Your task to perform on an android device: toggle pop-ups in chrome Image 0: 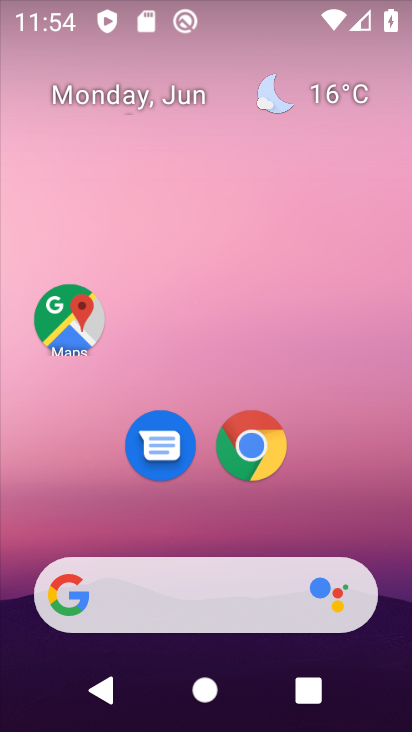
Step 0: click (248, 460)
Your task to perform on an android device: toggle pop-ups in chrome Image 1: 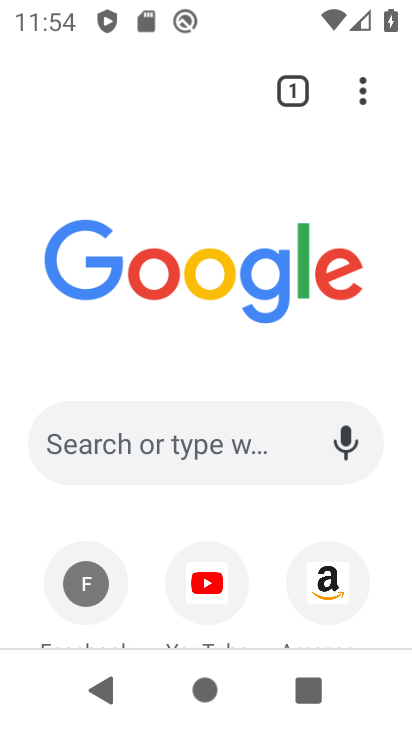
Step 1: click (348, 94)
Your task to perform on an android device: toggle pop-ups in chrome Image 2: 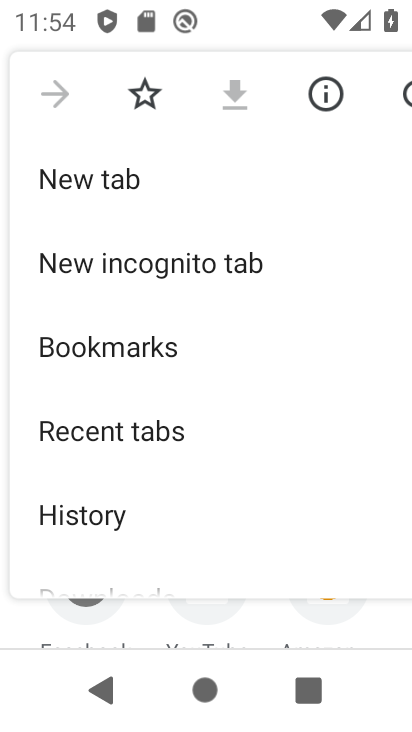
Step 2: drag from (185, 463) to (336, 32)
Your task to perform on an android device: toggle pop-ups in chrome Image 3: 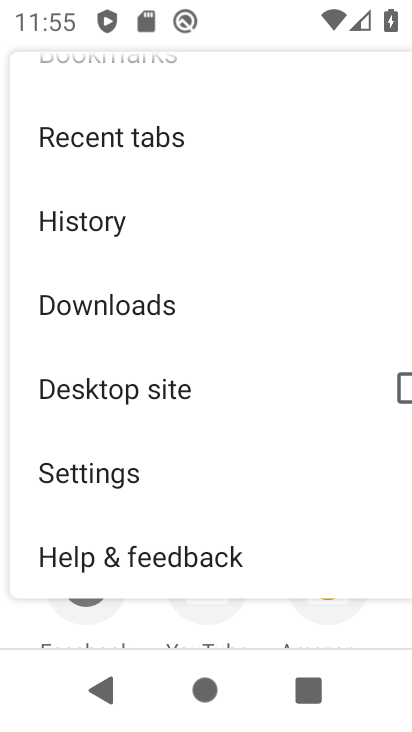
Step 3: click (126, 463)
Your task to perform on an android device: toggle pop-ups in chrome Image 4: 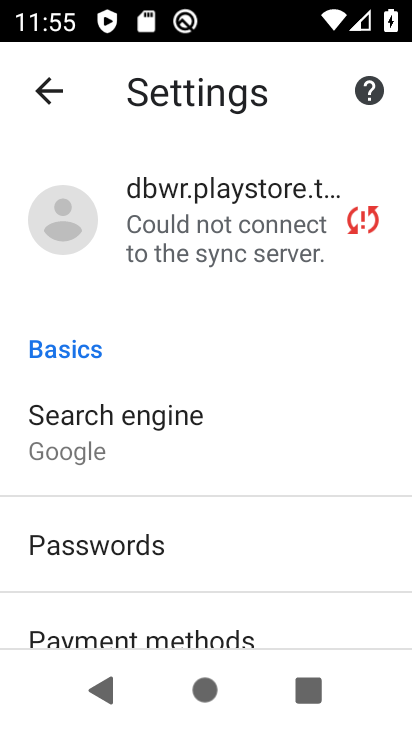
Step 4: drag from (101, 594) to (181, 159)
Your task to perform on an android device: toggle pop-ups in chrome Image 5: 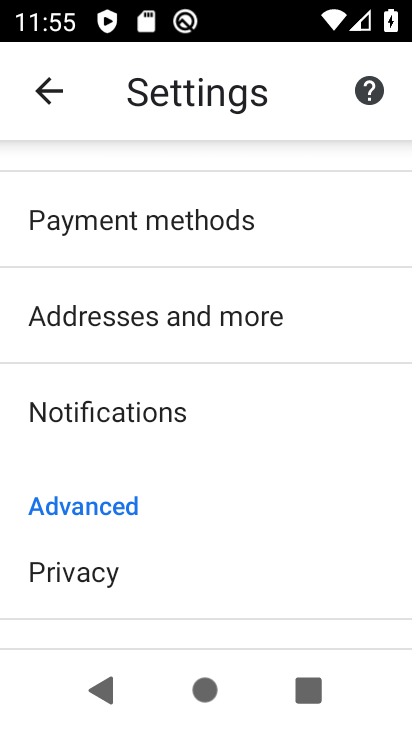
Step 5: drag from (125, 532) to (171, 164)
Your task to perform on an android device: toggle pop-ups in chrome Image 6: 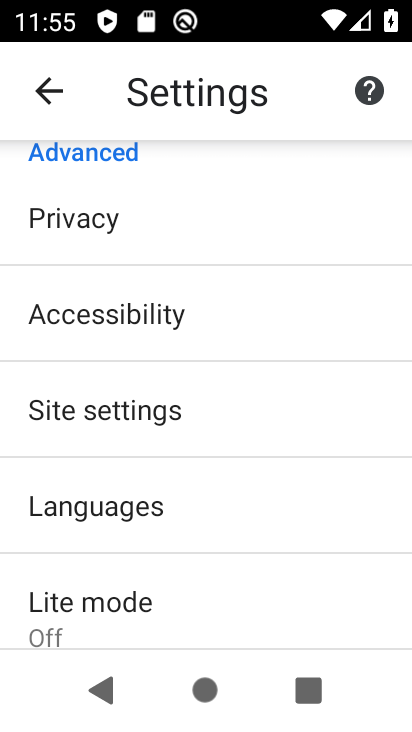
Step 6: click (224, 404)
Your task to perform on an android device: toggle pop-ups in chrome Image 7: 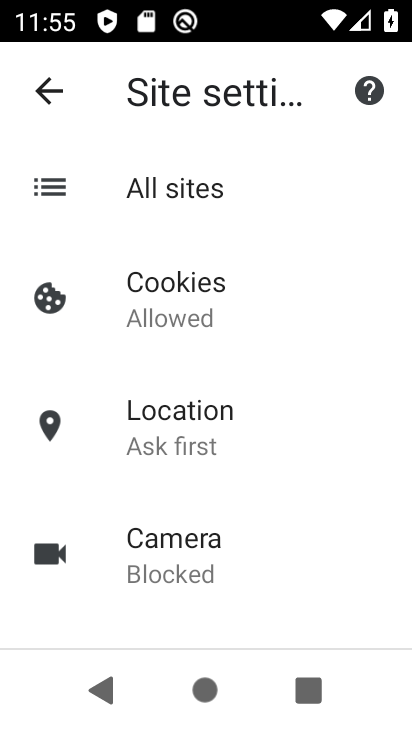
Step 7: drag from (127, 622) to (127, 157)
Your task to perform on an android device: toggle pop-ups in chrome Image 8: 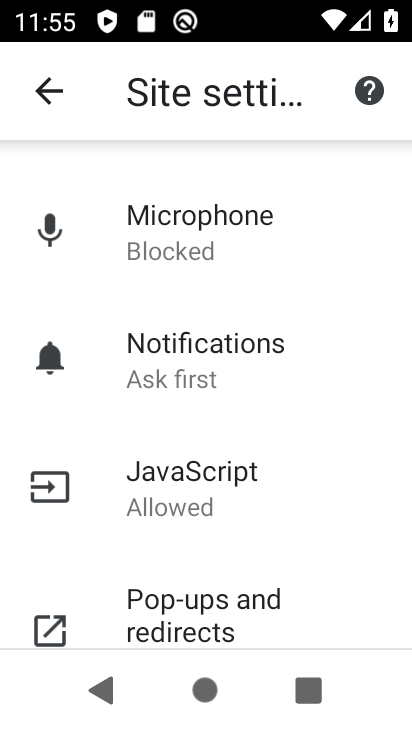
Step 8: drag from (65, 589) to (200, 99)
Your task to perform on an android device: toggle pop-ups in chrome Image 9: 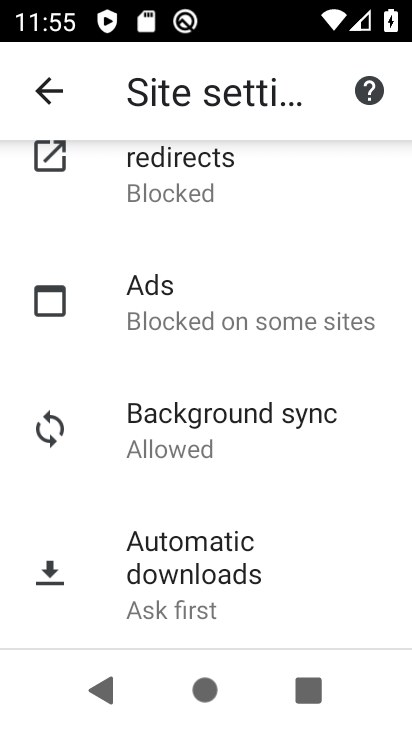
Step 9: drag from (233, 282) to (244, 504)
Your task to perform on an android device: toggle pop-ups in chrome Image 10: 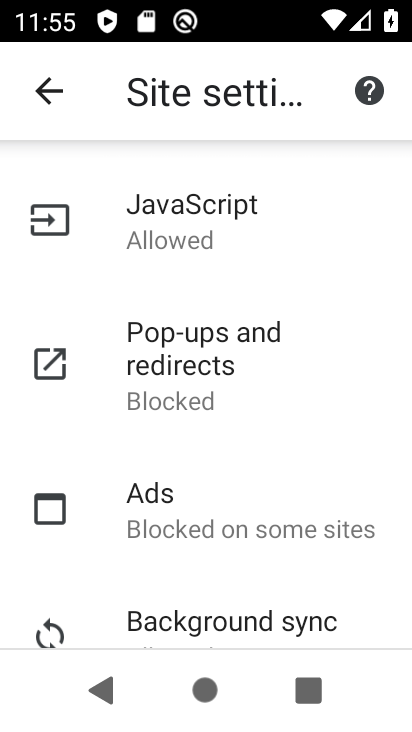
Step 10: click (160, 316)
Your task to perform on an android device: toggle pop-ups in chrome Image 11: 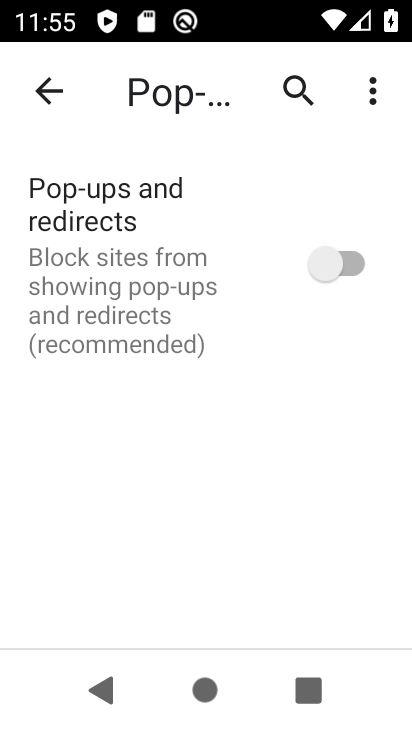
Step 11: click (334, 270)
Your task to perform on an android device: toggle pop-ups in chrome Image 12: 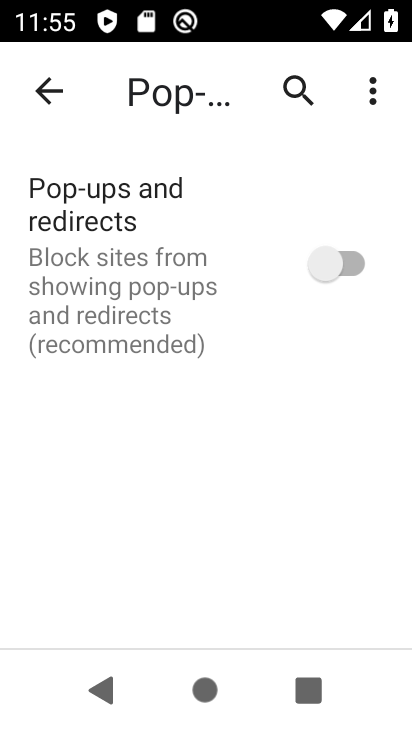
Step 12: click (334, 270)
Your task to perform on an android device: toggle pop-ups in chrome Image 13: 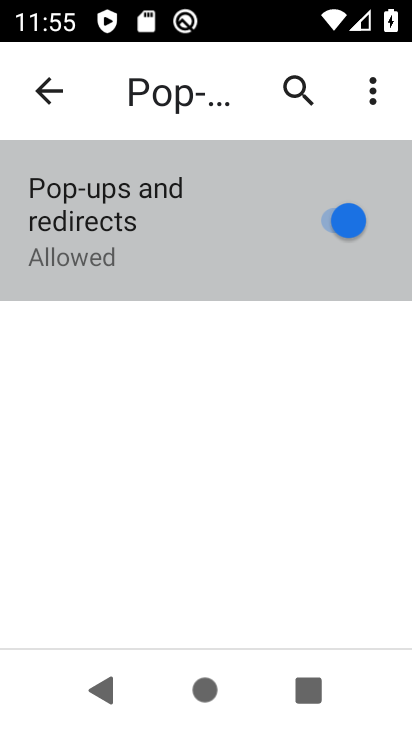
Step 13: click (334, 270)
Your task to perform on an android device: toggle pop-ups in chrome Image 14: 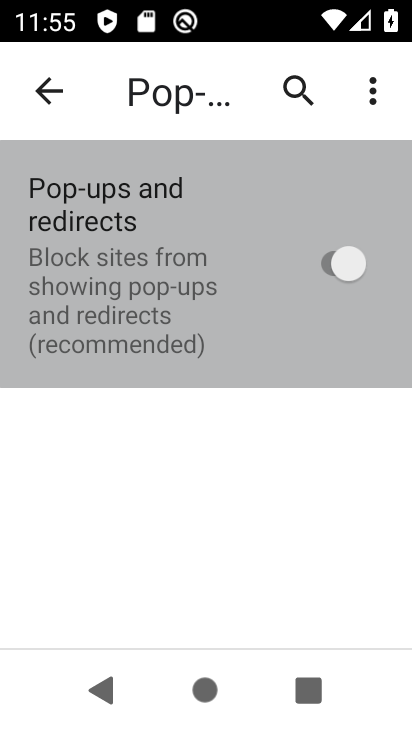
Step 14: click (334, 270)
Your task to perform on an android device: toggle pop-ups in chrome Image 15: 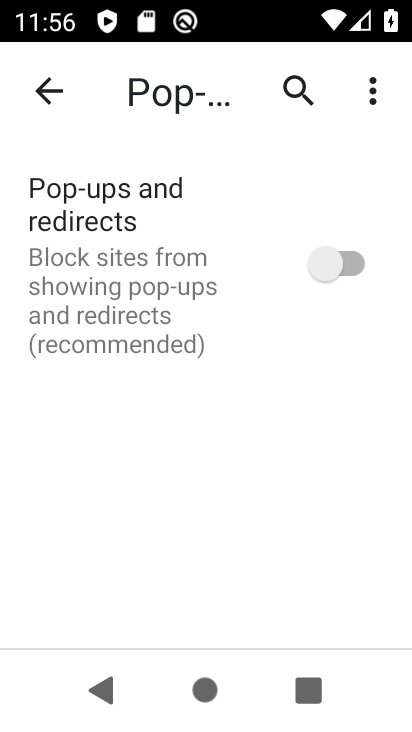
Step 15: click (357, 262)
Your task to perform on an android device: toggle pop-ups in chrome Image 16: 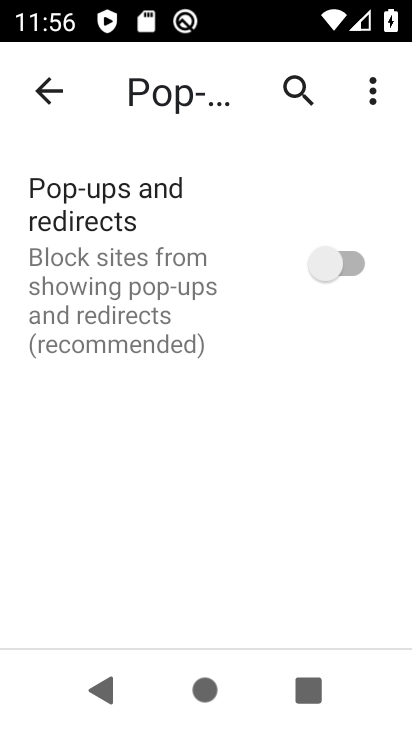
Step 16: click (357, 262)
Your task to perform on an android device: toggle pop-ups in chrome Image 17: 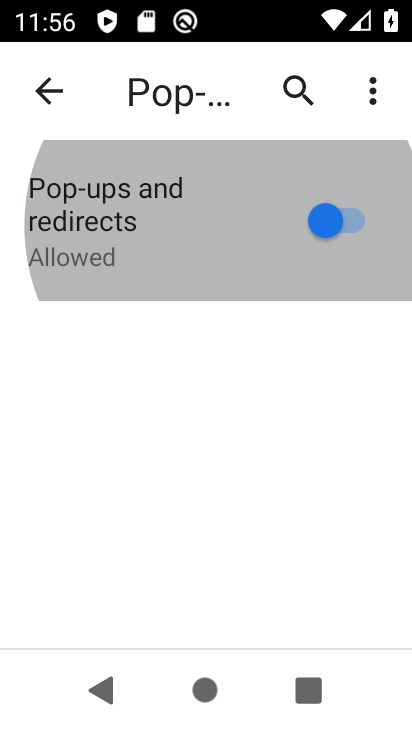
Step 17: click (357, 262)
Your task to perform on an android device: toggle pop-ups in chrome Image 18: 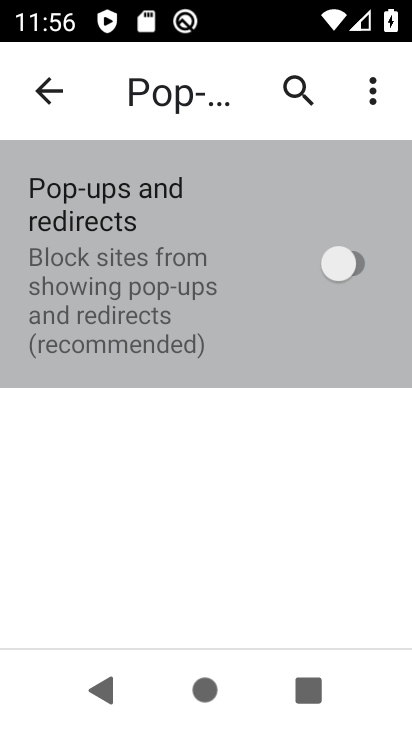
Step 18: click (357, 262)
Your task to perform on an android device: toggle pop-ups in chrome Image 19: 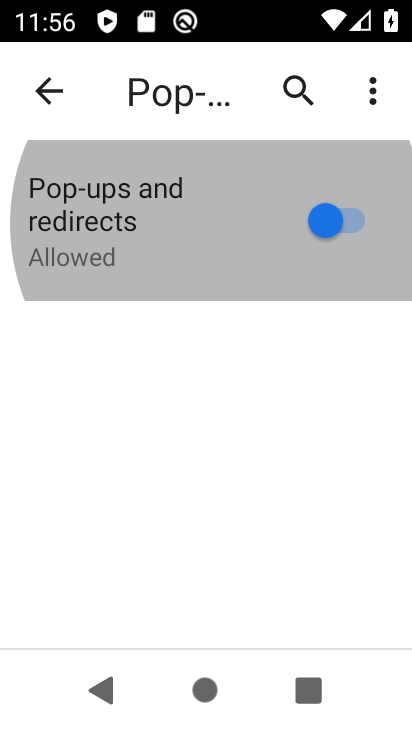
Step 19: click (357, 262)
Your task to perform on an android device: toggle pop-ups in chrome Image 20: 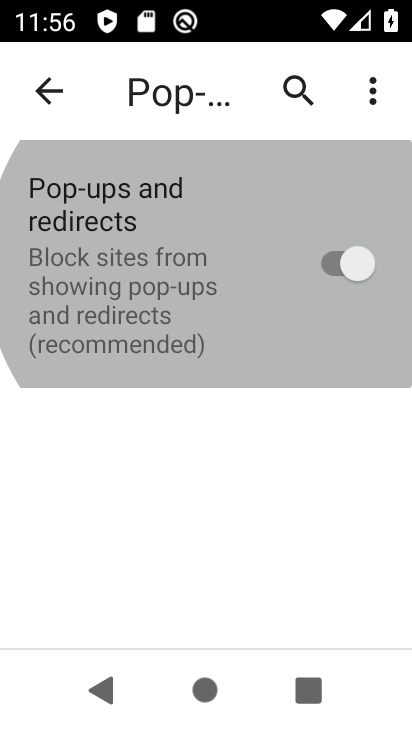
Step 20: click (357, 262)
Your task to perform on an android device: toggle pop-ups in chrome Image 21: 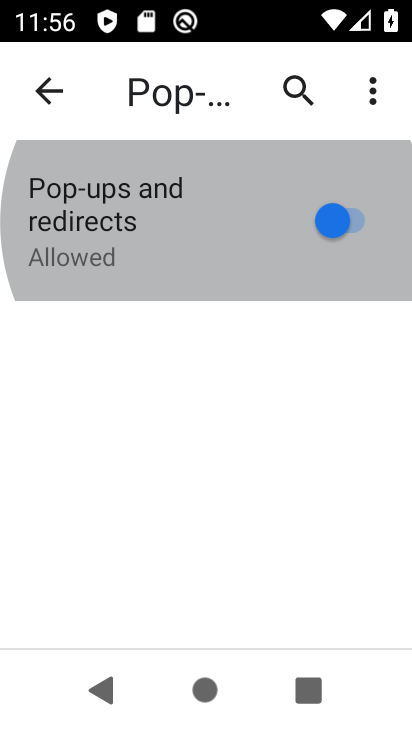
Step 21: click (357, 262)
Your task to perform on an android device: toggle pop-ups in chrome Image 22: 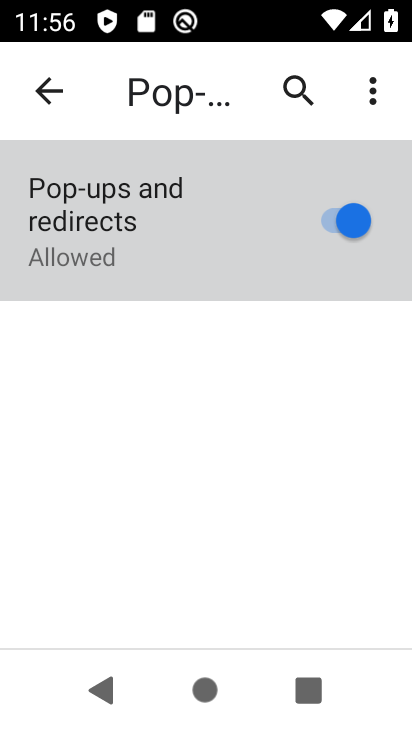
Step 22: click (357, 262)
Your task to perform on an android device: toggle pop-ups in chrome Image 23: 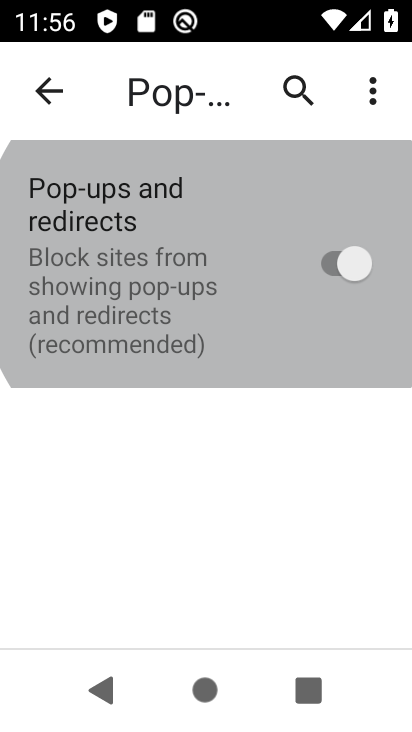
Step 23: click (357, 262)
Your task to perform on an android device: toggle pop-ups in chrome Image 24: 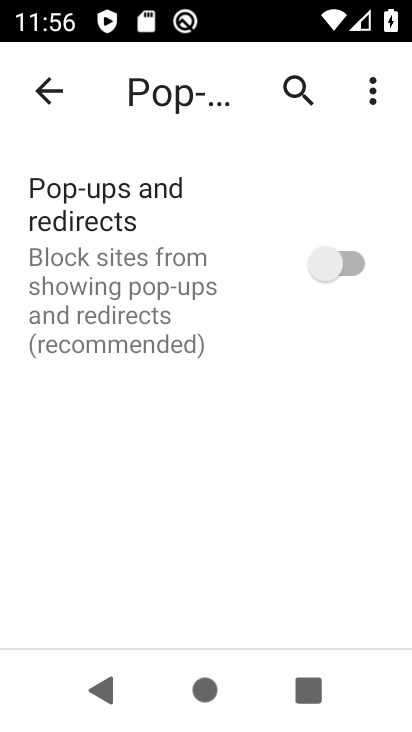
Step 24: task complete